Your task to perform on an android device: Install the Uber app Image 0: 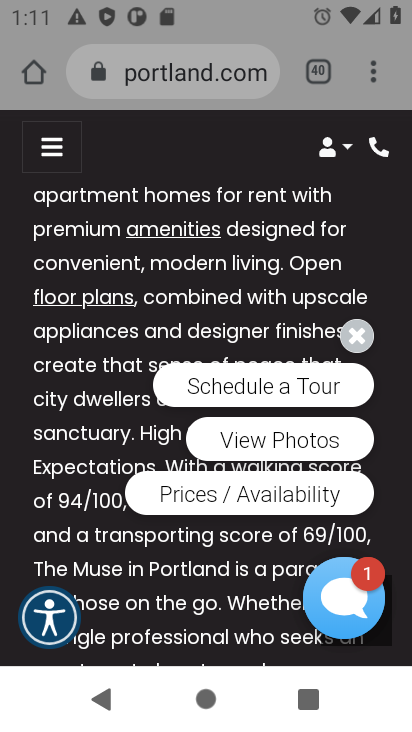
Step 0: press home button
Your task to perform on an android device: Install the Uber app Image 1: 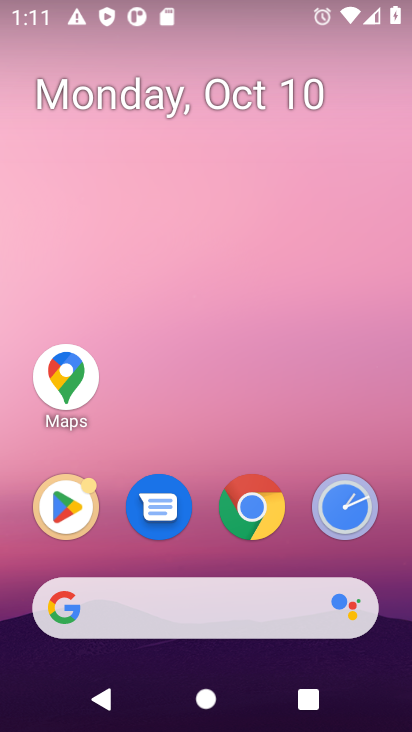
Step 1: drag from (392, 573) to (403, 77)
Your task to perform on an android device: Install the Uber app Image 2: 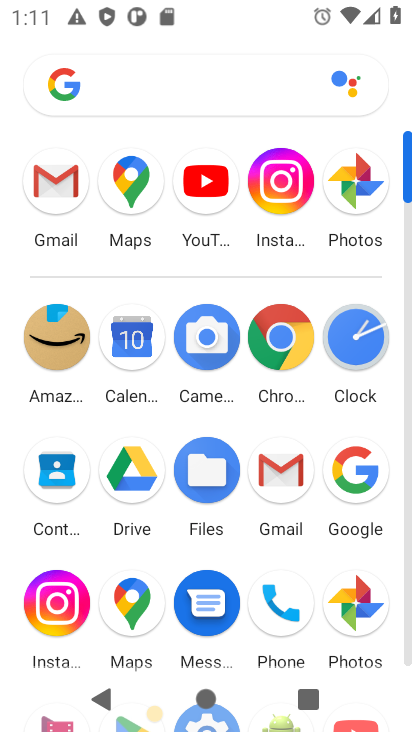
Step 2: drag from (383, 556) to (397, 259)
Your task to perform on an android device: Install the Uber app Image 3: 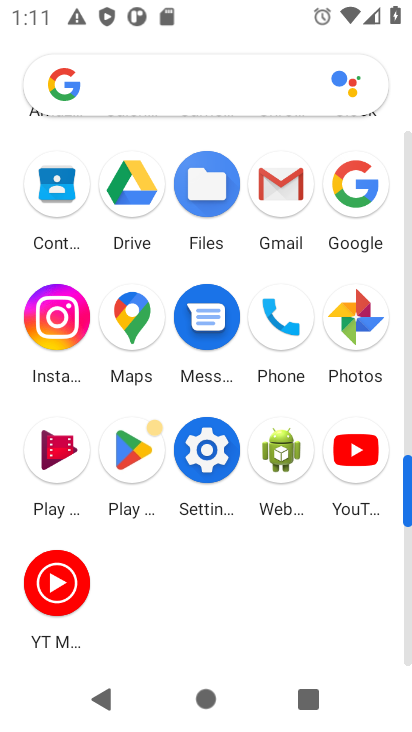
Step 3: click (132, 466)
Your task to perform on an android device: Install the Uber app Image 4: 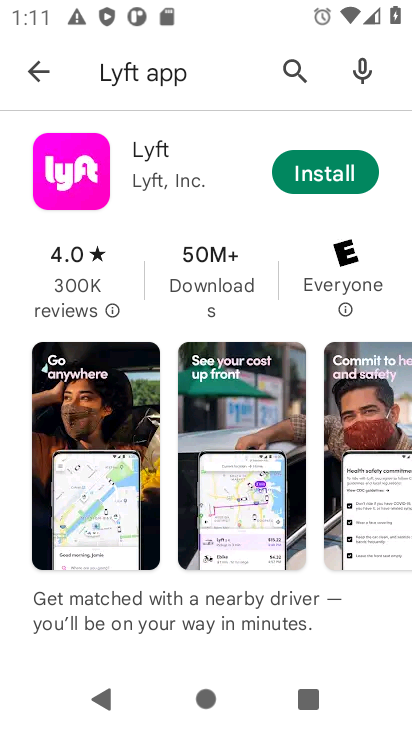
Step 4: click (295, 71)
Your task to perform on an android device: Install the Uber app Image 5: 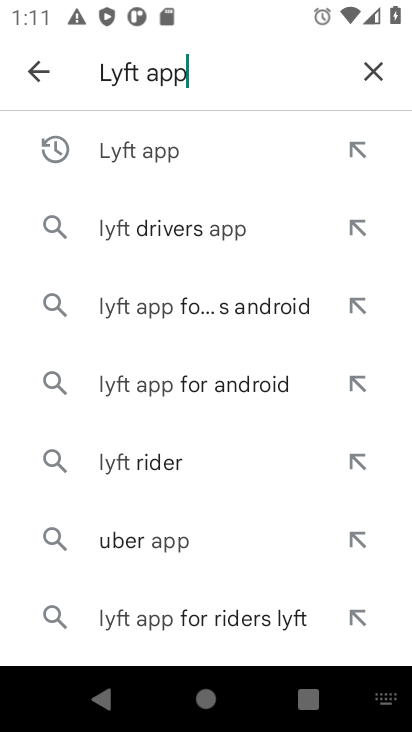
Step 5: click (372, 68)
Your task to perform on an android device: Install the Uber app Image 6: 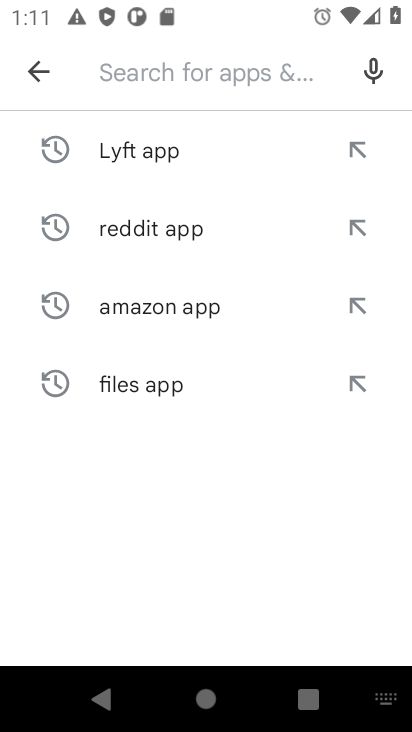
Step 6: type "Uber app"
Your task to perform on an android device: Install the Uber app Image 7: 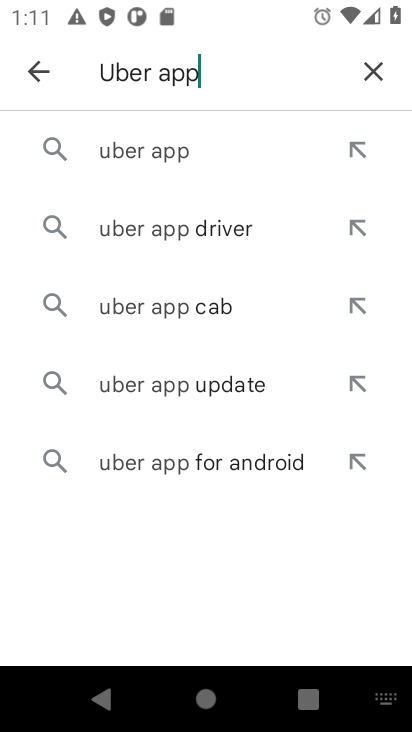
Step 7: press enter
Your task to perform on an android device: Install the Uber app Image 8: 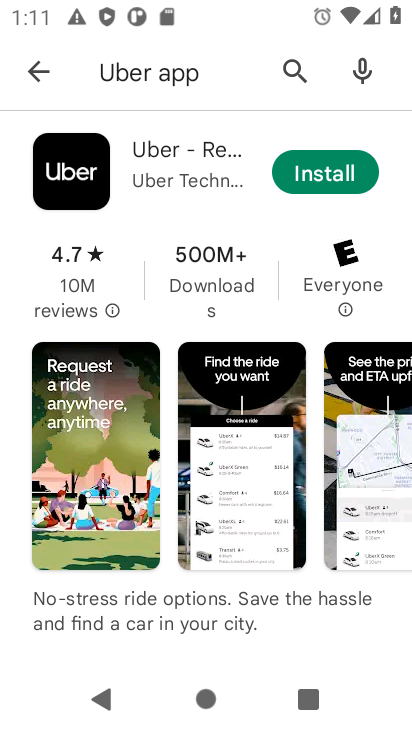
Step 8: click (337, 174)
Your task to perform on an android device: Install the Uber app Image 9: 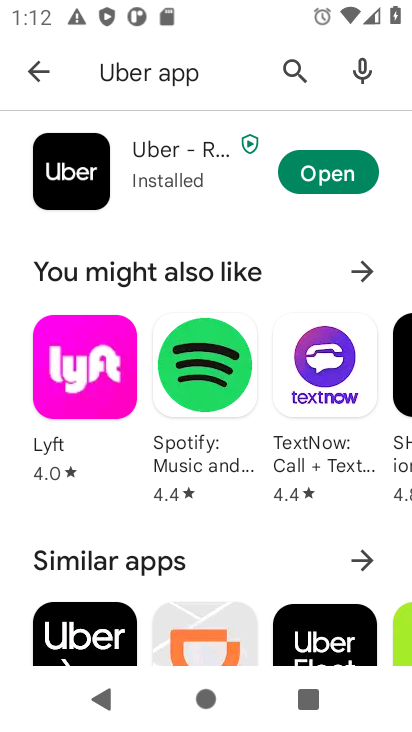
Step 9: task complete